Your task to perform on an android device: Go to Yahoo.com Image 0: 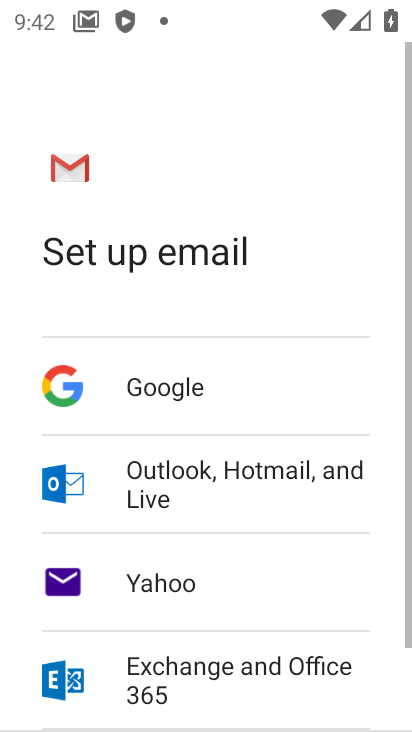
Step 0: press home button
Your task to perform on an android device: Go to Yahoo.com Image 1: 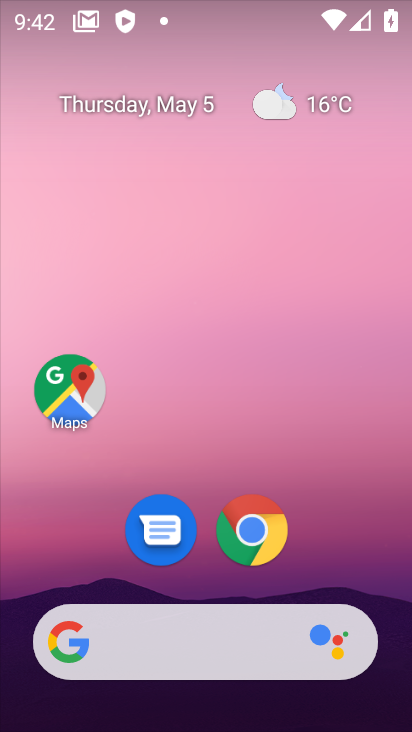
Step 1: click (150, 18)
Your task to perform on an android device: Go to Yahoo.com Image 2: 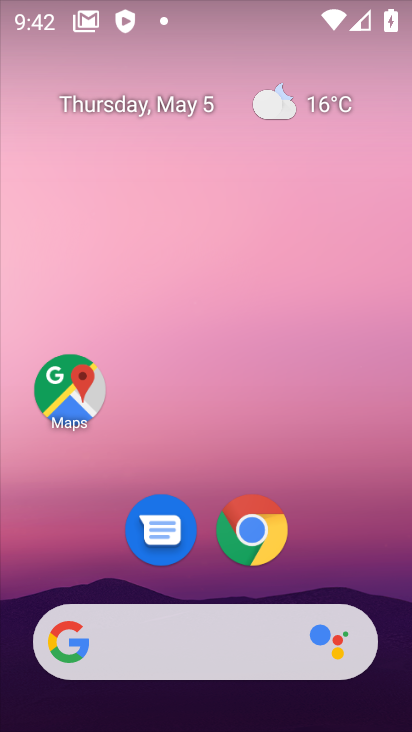
Step 2: drag from (313, 560) to (130, 25)
Your task to perform on an android device: Go to Yahoo.com Image 3: 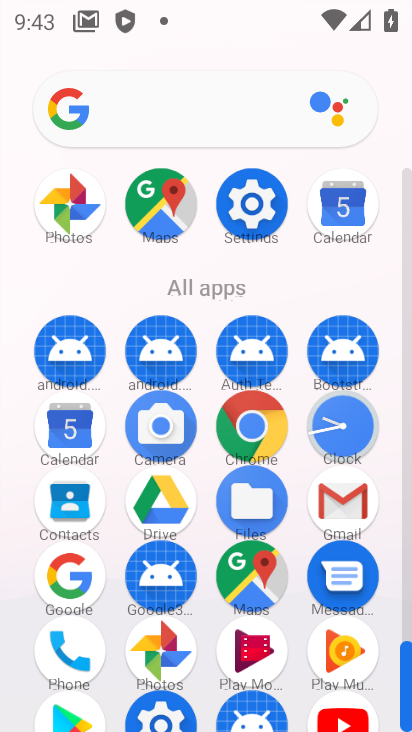
Step 3: click (235, 418)
Your task to perform on an android device: Go to Yahoo.com Image 4: 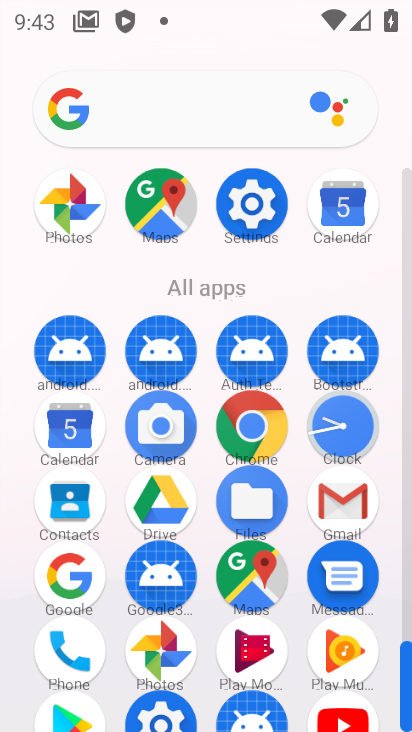
Step 4: click (248, 430)
Your task to perform on an android device: Go to Yahoo.com Image 5: 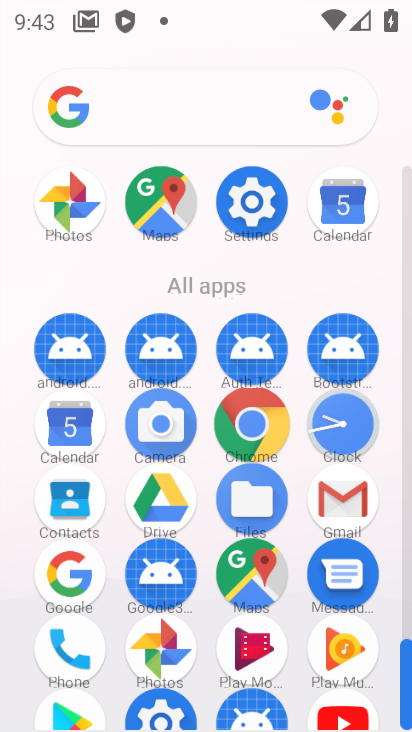
Step 5: click (248, 430)
Your task to perform on an android device: Go to Yahoo.com Image 6: 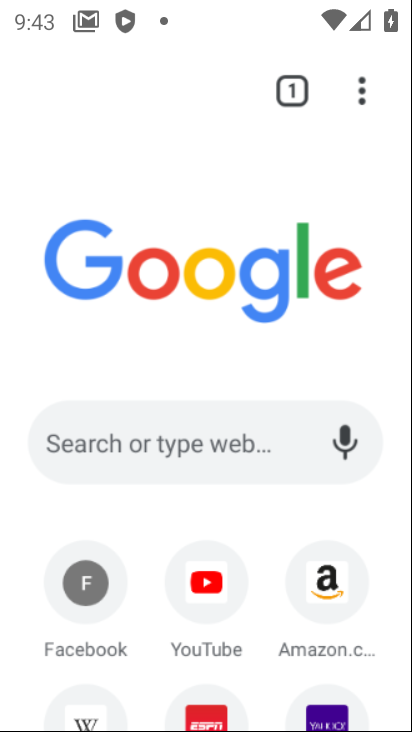
Step 6: click (252, 431)
Your task to perform on an android device: Go to Yahoo.com Image 7: 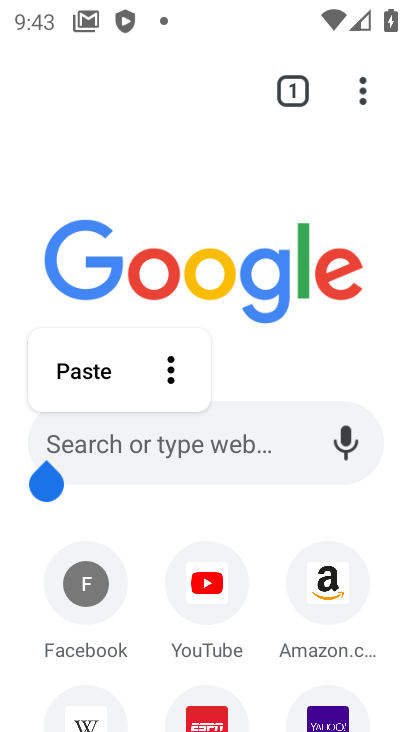
Step 7: drag from (269, 636) to (269, 93)
Your task to perform on an android device: Go to Yahoo.com Image 8: 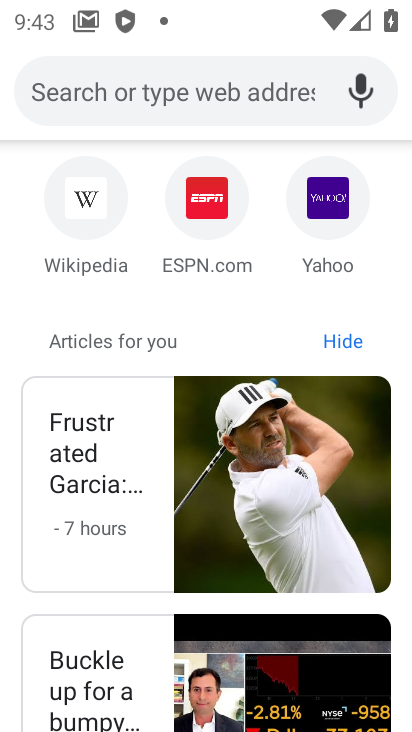
Step 8: click (325, 207)
Your task to perform on an android device: Go to Yahoo.com Image 9: 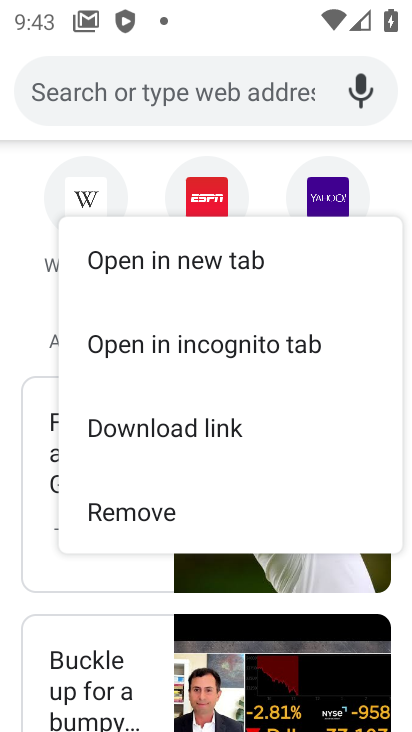
Step 9: click (325, 195)
Your task to perform on an android device: Go to Yahoo.com Image 10: 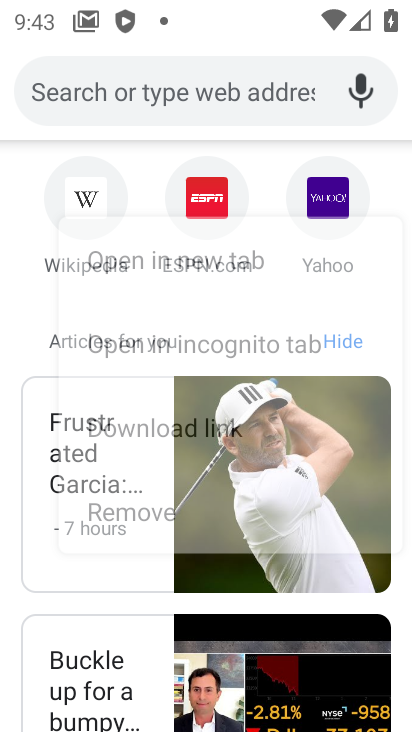
Step 10: click (325, 195)
Your task to perform on an android device: Go to Yahoo.com Image 11: 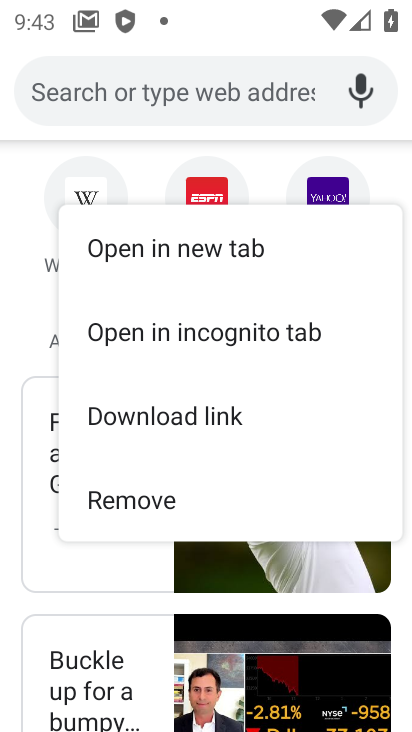
Step 11: click (194, 262)
Your task to perform on an android device: Go to Yahoo.com Image 12: 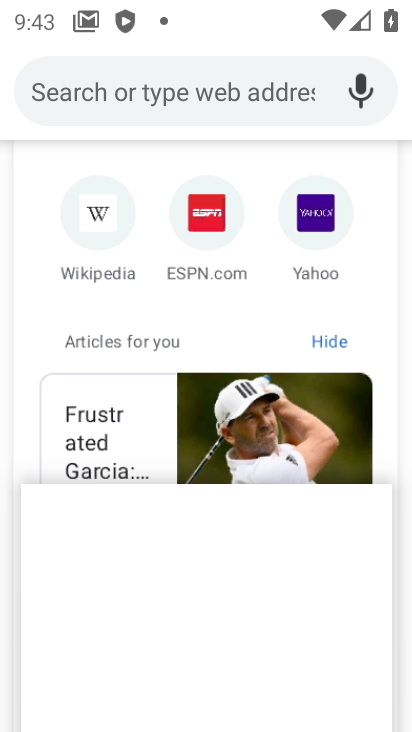
Step 12: click (195, 225)
Your task to perform on an android device: Go to Yahoo.com Image 13: 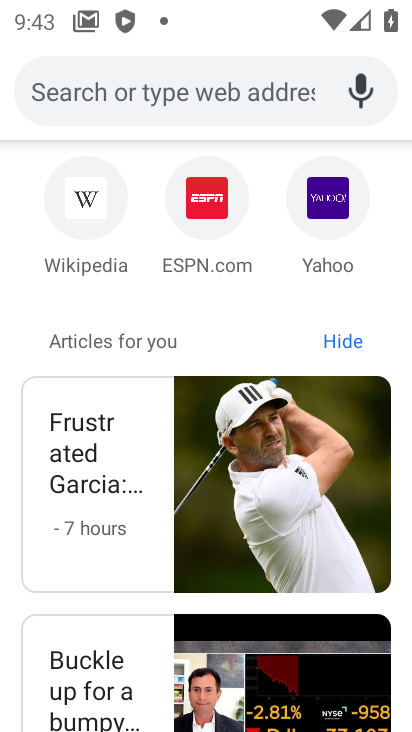
Step 13: click (196, 252)
Your task to perform on an android device: Go to Yahoo.com Image 14: 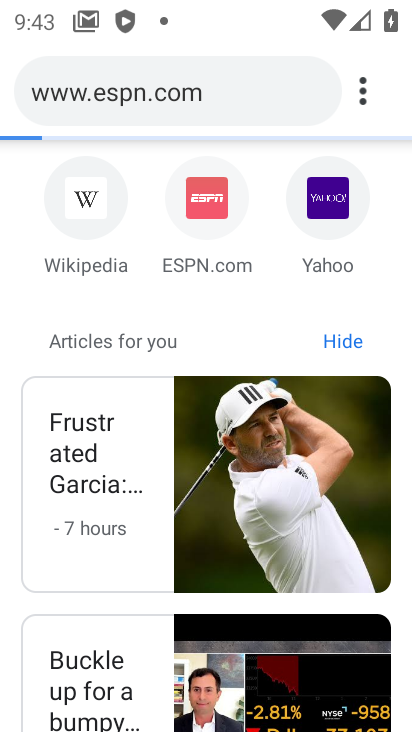
Step 14: click (196, 252)
Your task to perform on an android device: Go to Yahoo.com Image 15: 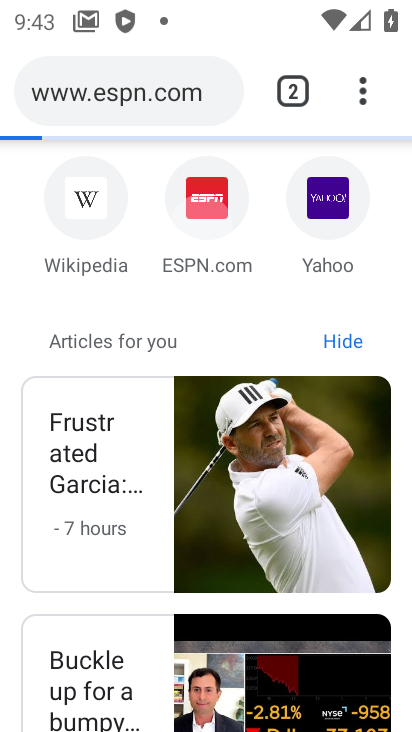
Step 15: click (196, 252)
Your task to perform on an android device: Go to Yahoo.com Image 16: 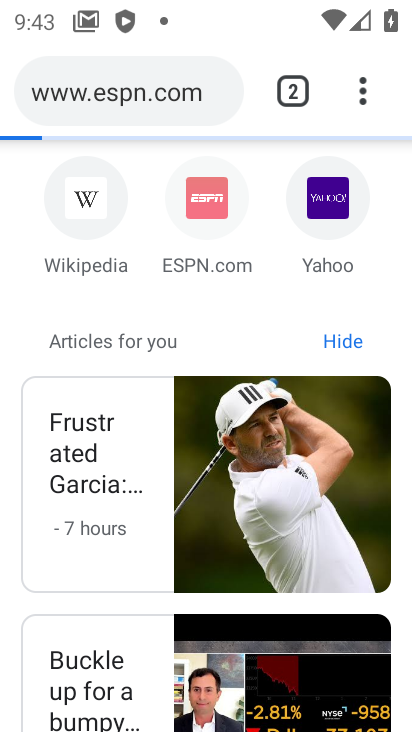
Step 16: click (196, 253)
Your task to perform on an android device: Go to Yahoo.com Image 17: 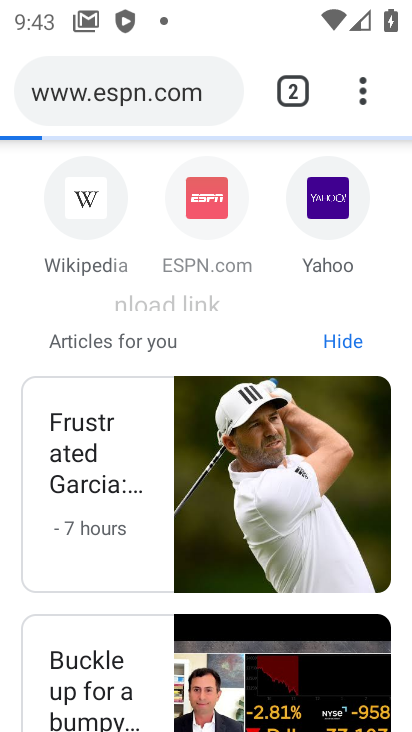
Step 17: click (198, 254)
Your task to perform on an android device: Go to Yahoo.com Image 18: 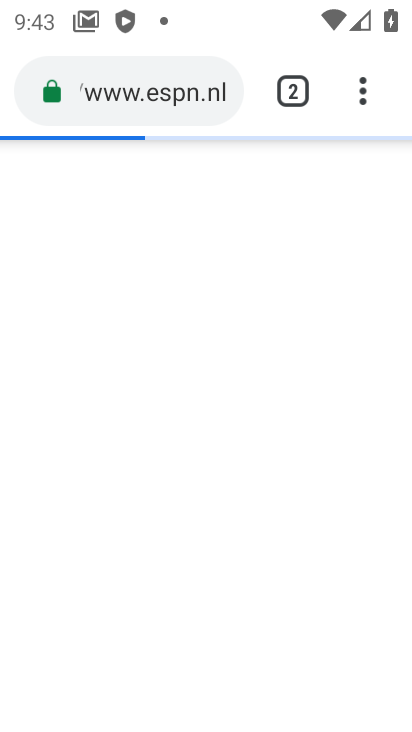
Step 18: click (334, 198)
Your task to perform on an android device: Go to Yahoo.com Image 19: 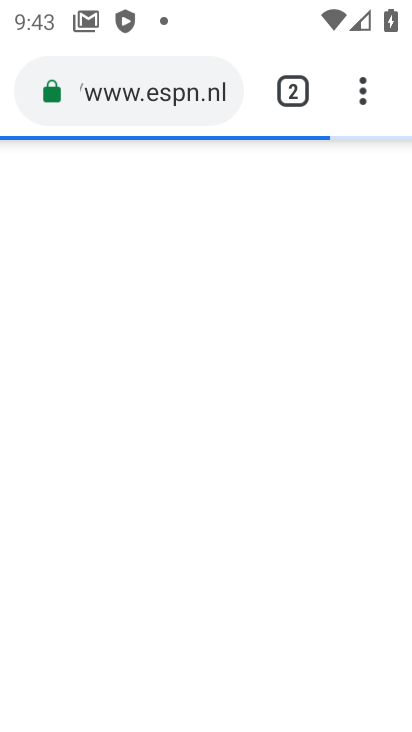
Step 19: click (332, 196)
Your task to perform on an android device: Go to Yahoo.com Image 20: 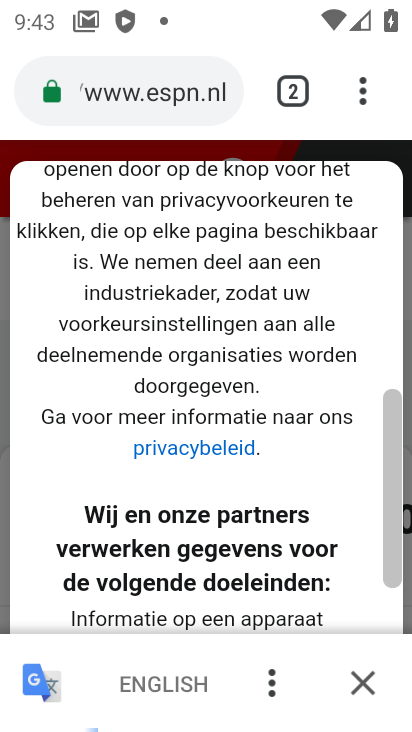
Step 20: click (360, 684)
Your task to perform on an android device: Go to Yahoo.com Image 21: 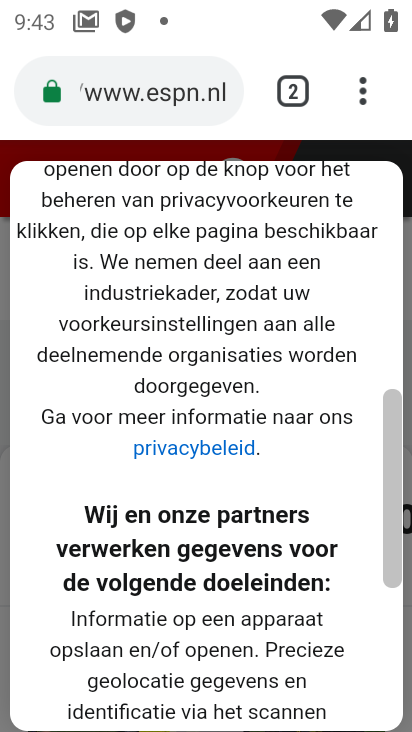
Step 21: click (361, 90)
Your task to perform on an android device: Go to Yahoo.com Image 22: 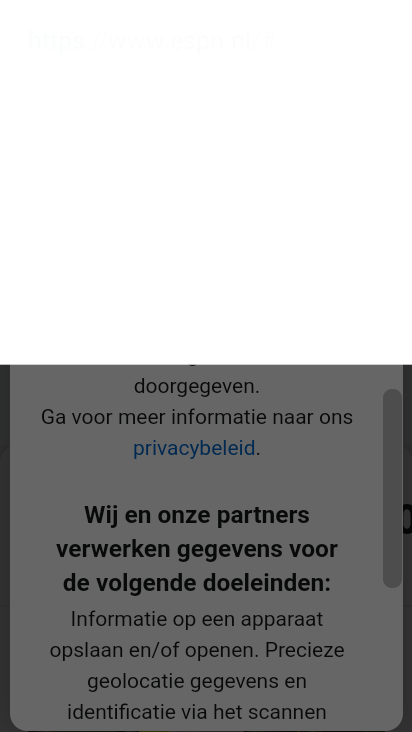
Step 22: click (361, 90)
Your task to perform on an android device: Go to Yahoo.com Image 23: 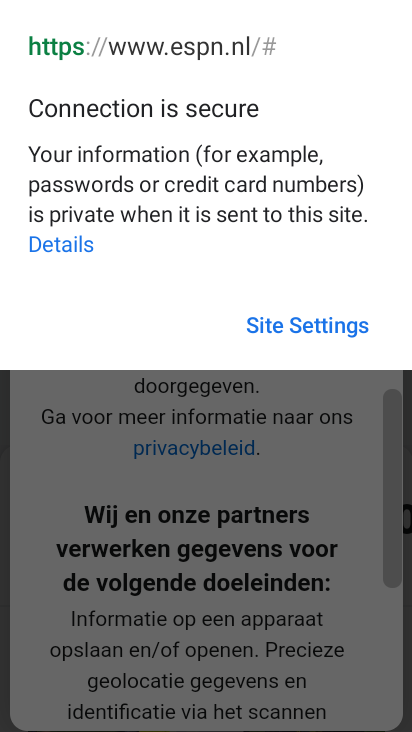
Step 23: click (361, 90)
Your task to perform on an android device: Go to Yahoo.com Image 24: 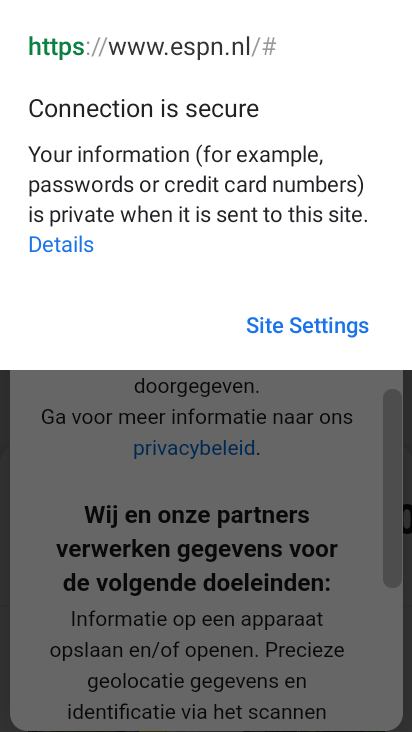
Step 24: click (317, 330)
Your task to perform on an android device: Go to Yahoo.com Image 25: 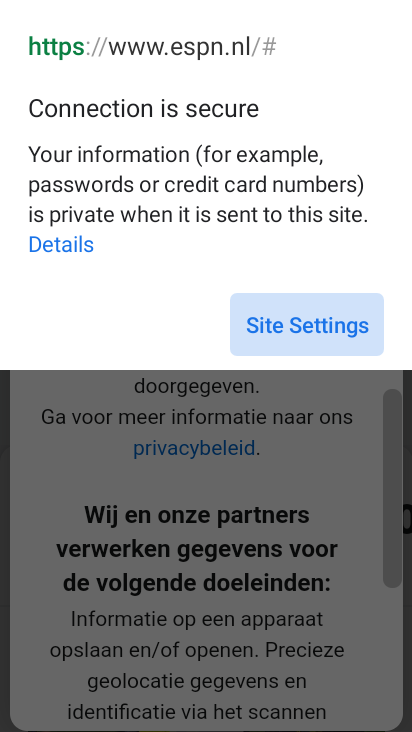
Step 25: click (318, 331)
Your task to perform on an android device: Go to Yahoo.com Image 26: 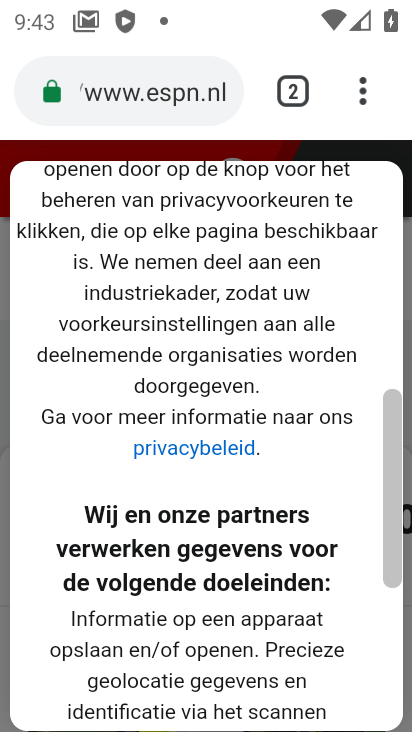
Step 26: click (318, 331)
Your task to perform on an android device: Go to Yahoo.com Image 27: 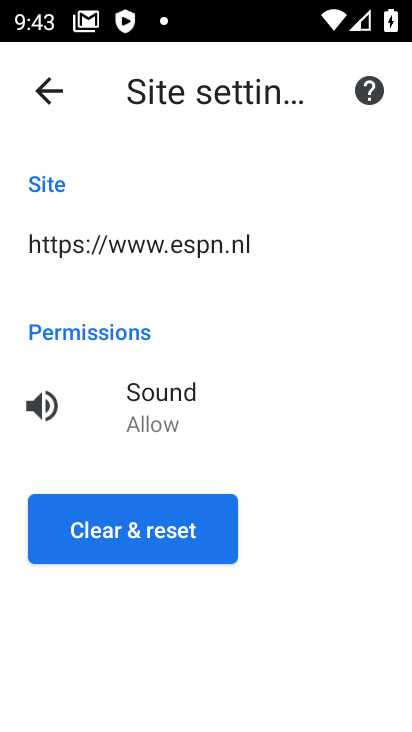
Step 27: click (328, 342)
Your task to perform on an android device: Go to Yahoo.com Image 28: 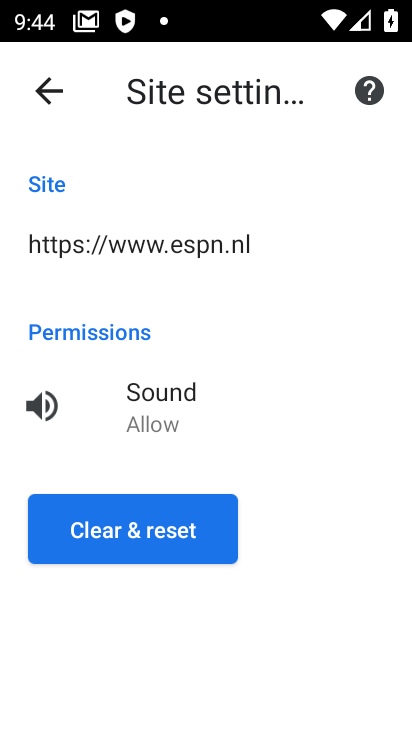
Step 28: click (49, 99)
Your task to perform on an android device: Go to Yahoo.com Image 29: 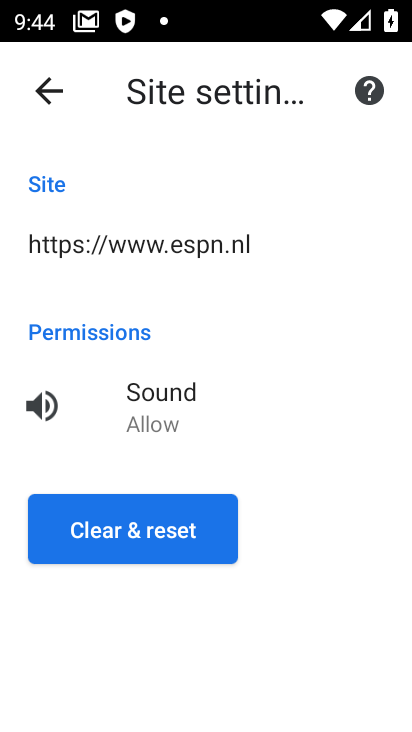
Step 29: click (49, 93)
Your task to perform on an android device: Go to Yahoo.com Image 30: 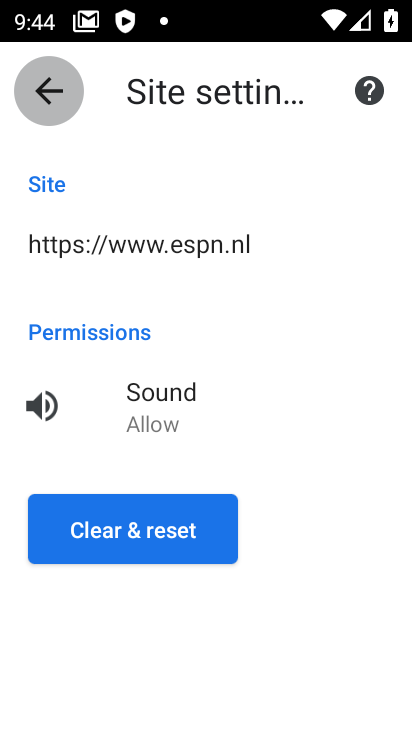
Step 30: click (49, 94)
Your task to perform on an android device: Go to Yahoo.com Image 31: 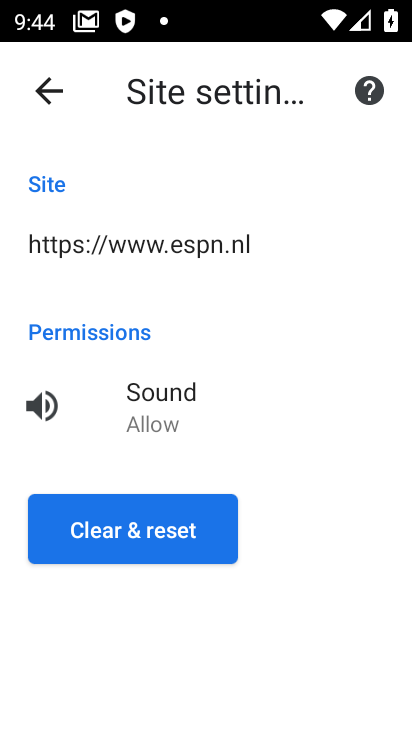
Step 31: click (49, 95)
Your task to perform on an android device: Go to Yahoo.com Image 32: 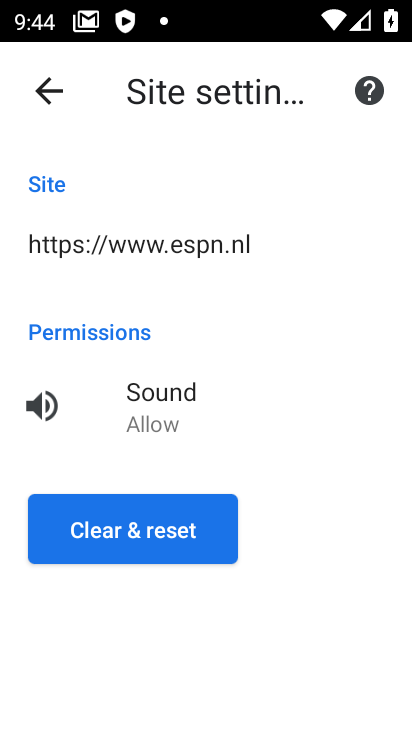
Step 32: click (52, 98)
Your task to perform on an android device: Go to Yahoo.com Image 33: 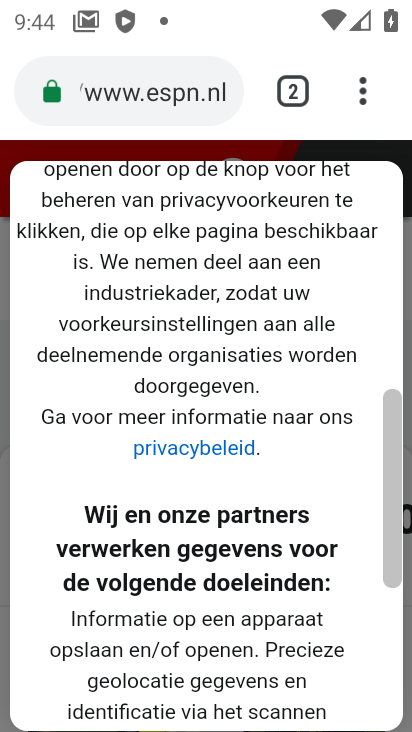
Step 33: click (360, 84)
Your task to perform on an android device: Go to Yahoo.com Image 34: 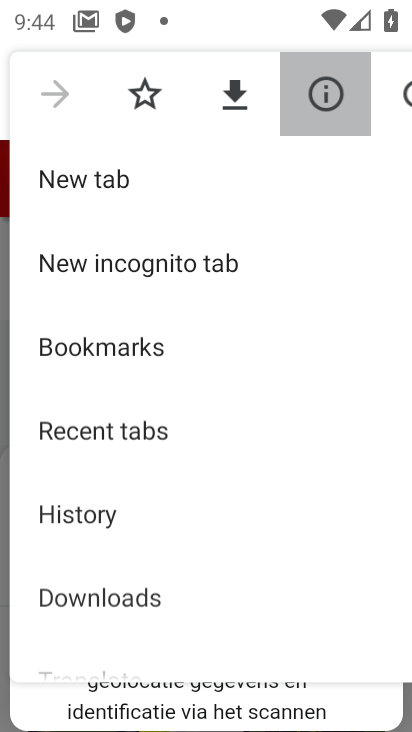
Step 34: click (366, 91)
Your task to perform on an android device: Go to Yahoo.com Image 35: 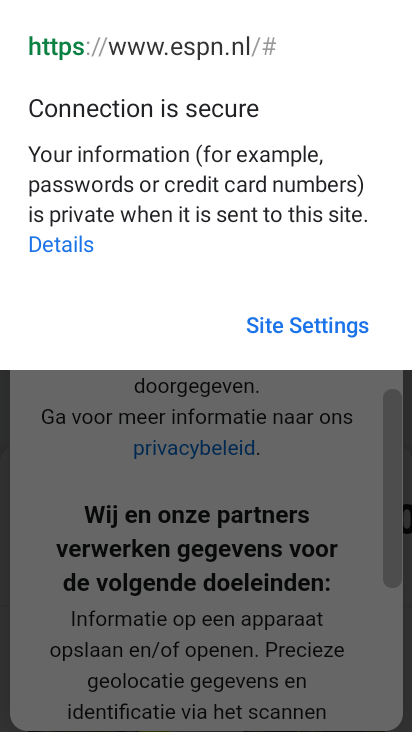
Step 35: click (313, 329)
Your task to perform on an android device: Go to Yahoo.com Image 36: 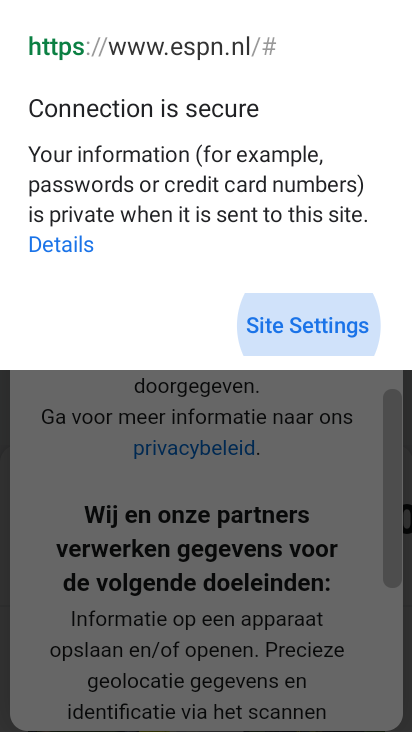
Step 36: click (313, 328)
Your task to perform on an android device: Go to Yahoo.com Image 37: 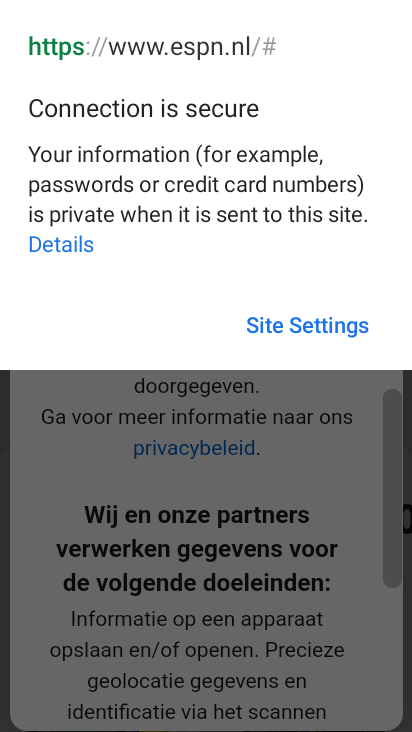
Step 37: click (303, 338)
Your task to perform on an android device: Go to Yahoo.com Image 38: 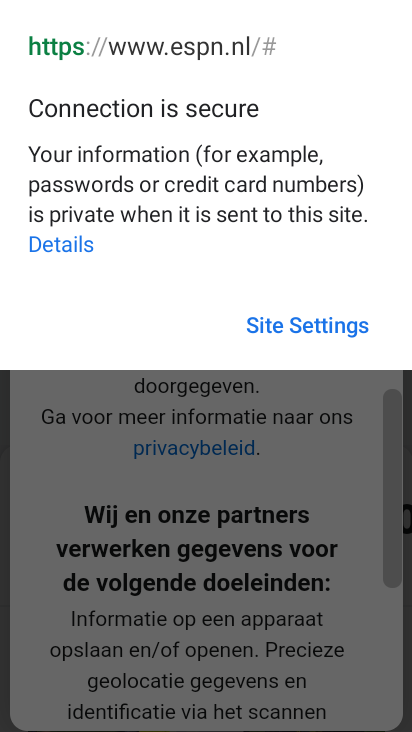
Step 38: click (308, 334)
Your task to perform on an android device: Go to Yahoo.com Image 39: 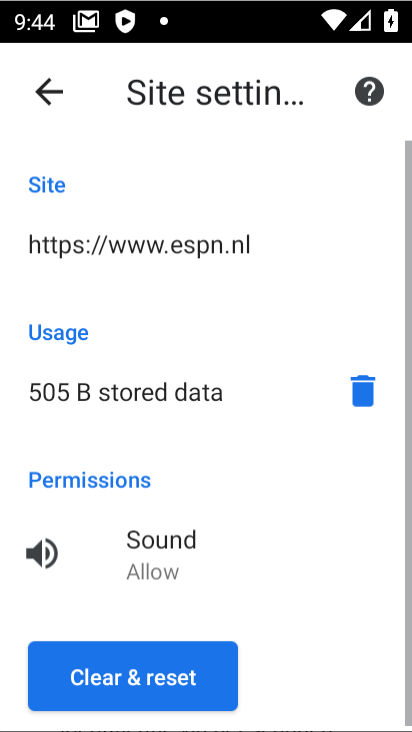
Step 39: click (309, 332)
Your task to perform on an android device: Go to Yahoo.com Image 40: 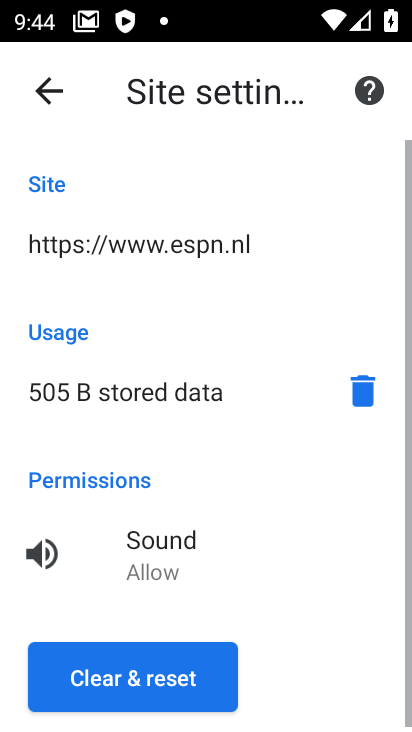
Step 40: click (310, 331)
Your task to perform on an android device: Go to Yahoo.com Image 41: 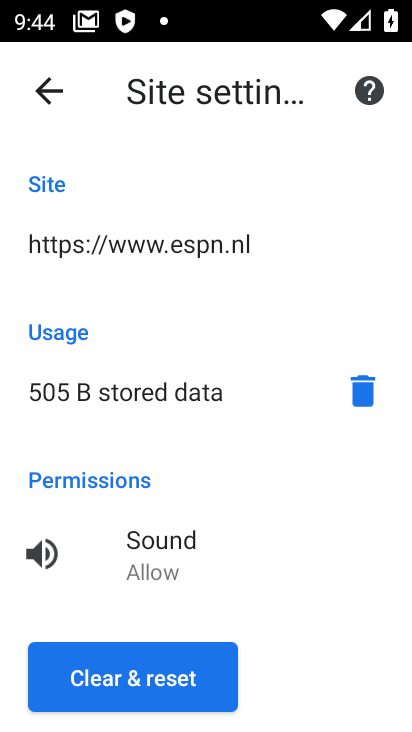
Step 41: click (37, 94)
Your task to perform on an android device: Go to Yahoo.com Image 42: 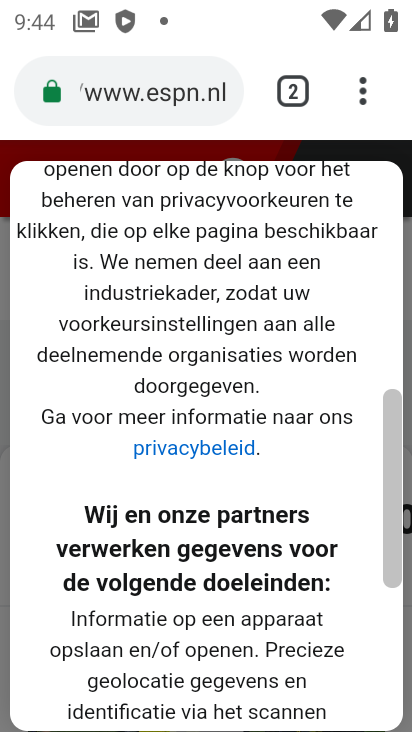
Step 42: click (43, 94)
Your task to perform on an android device: Go to Yahoo.com Image 43: 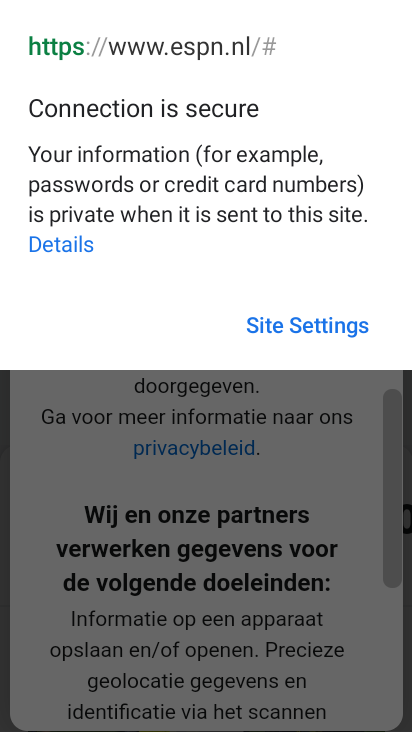
Step 43: click (314, 327)
Your task to perform on an android device: Go to Yahoo.com Image 44: 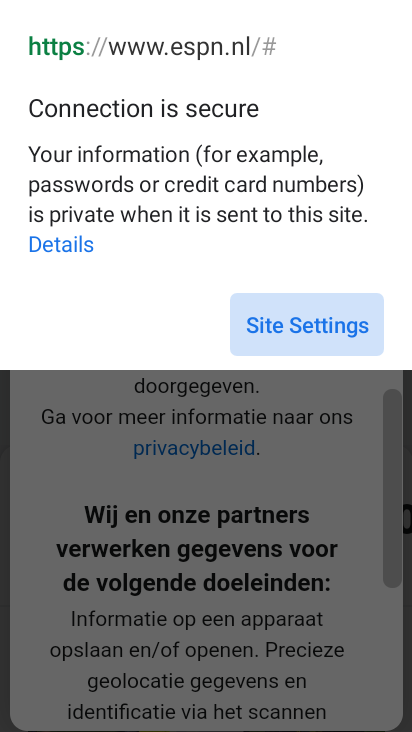
Step 44: click (314, 327)
Your task to perform on an android device: Go to Yahoo.com Image 45: 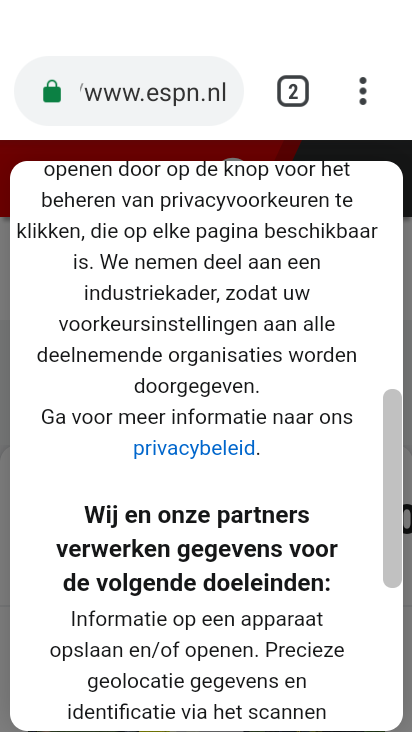
Step 45: click (314, 327)
Your task to perform on an android device: Go to Yahoo.com Image 46: 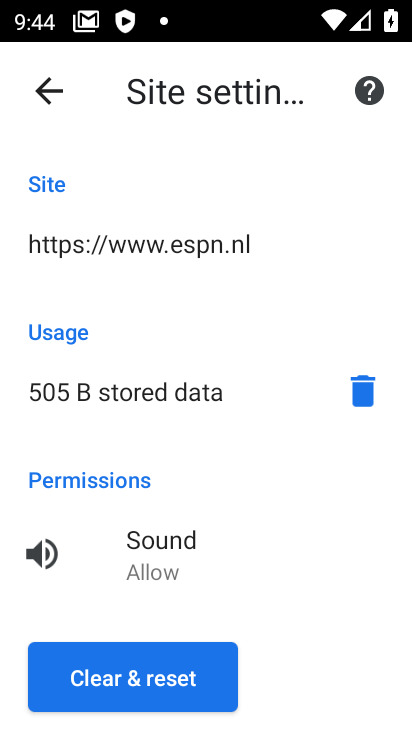
Step 46: click (48, 92)
Your task to perform on an android device: Go to Yahoo.com Image 47: 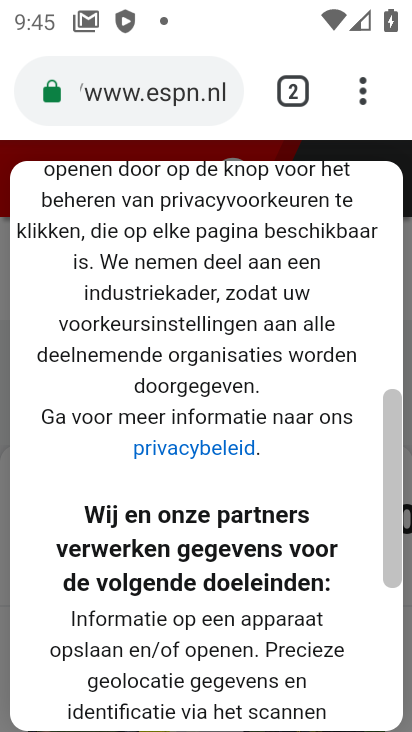
Step 47: press home button
Your task to perform on an android device: Go to Yahoo.com Image 48: 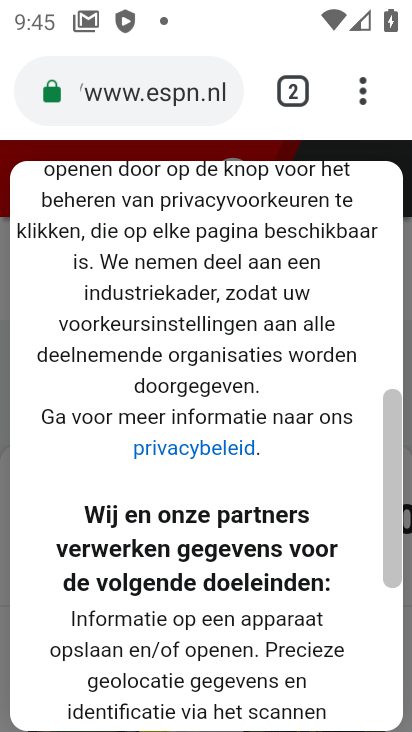
Step 48: press home button
Your task to perform on an android device: Go to Yahoo.com Image 49: 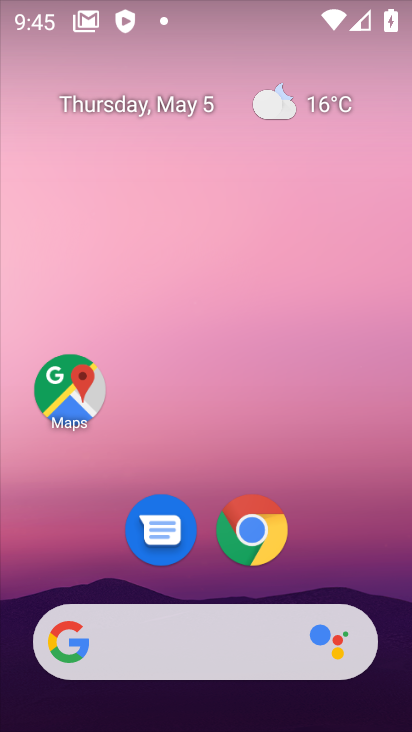
Step 49: drag from (230, 328) to (115, 3)
Your task to perform on an android device: Go to Yahoo.com Image 50: 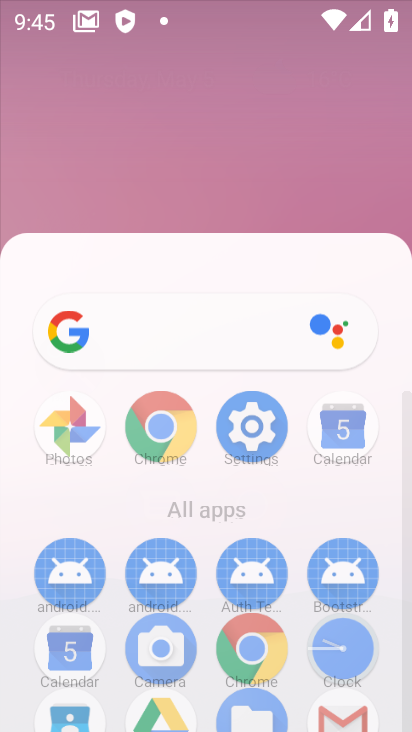
Step 50: click (119, 2)
Your task to perform on an android device: Go to Yahoo.com Image 51: 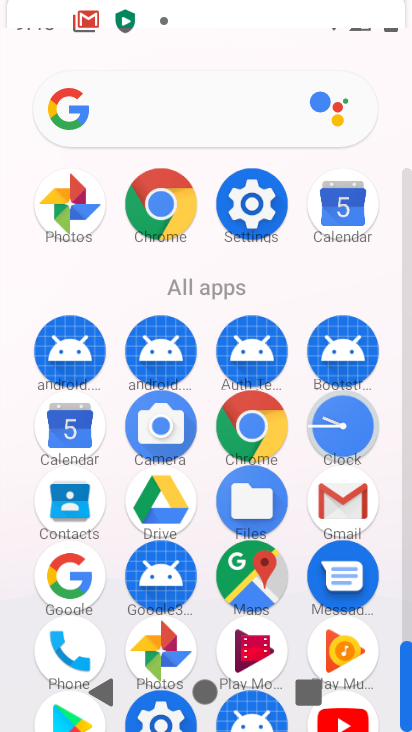
Step 51: drag from (323, 546) to (244, 29)
Your task to perform on an android device: Go to Yahoo.com Image 52: 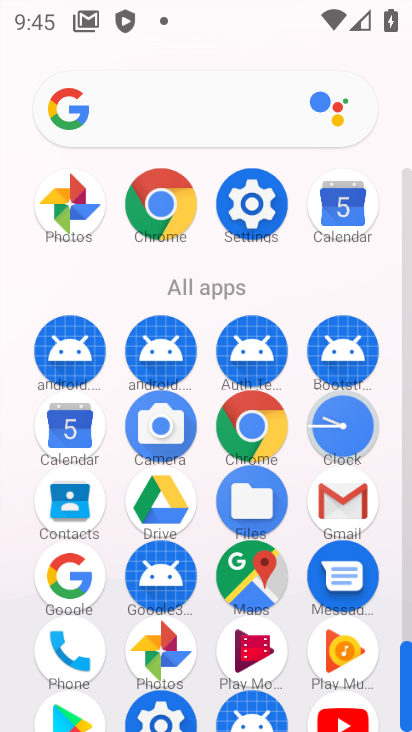
Step 52: click (156, 220)
Your task to perform on an android device: Go to Yahoo.com Image 53: 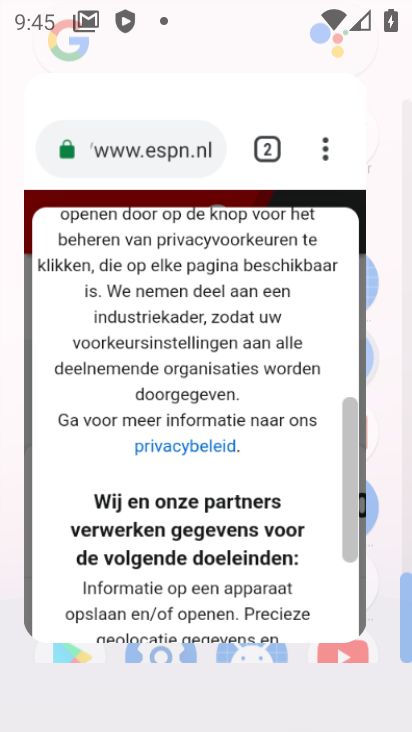
Step 53: click (154, 215)
Your task to perform on an android device: Go to Yahoo.com Image 54: 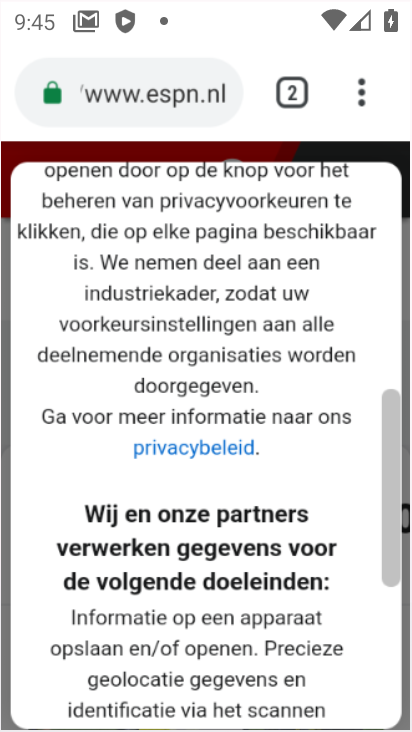
Step 54: click (156, 216)
Your task to perform on an android device: Go to Yahoo.com Image 55: 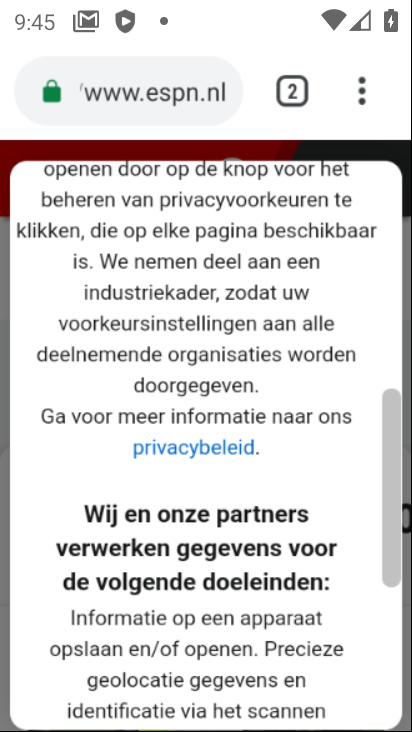
Step 55: click (158, 218)
Your task to perform on an android device: Go to Yahoo.com Image 56: 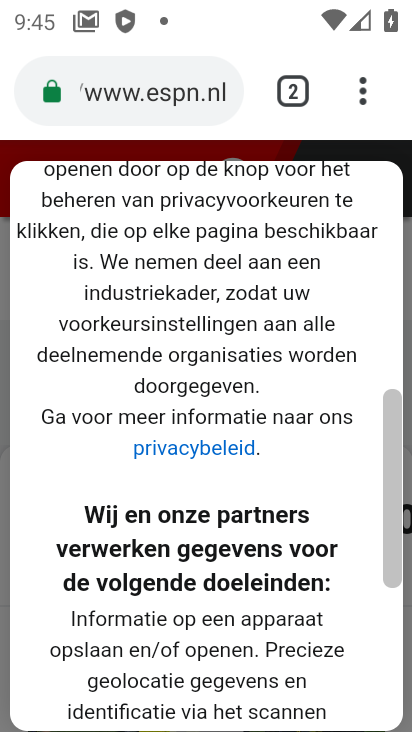
Step 56: drag from (238, 542) to (377, 23)
Your task to perform on an android device: Go to Yahoo.com Image 57: 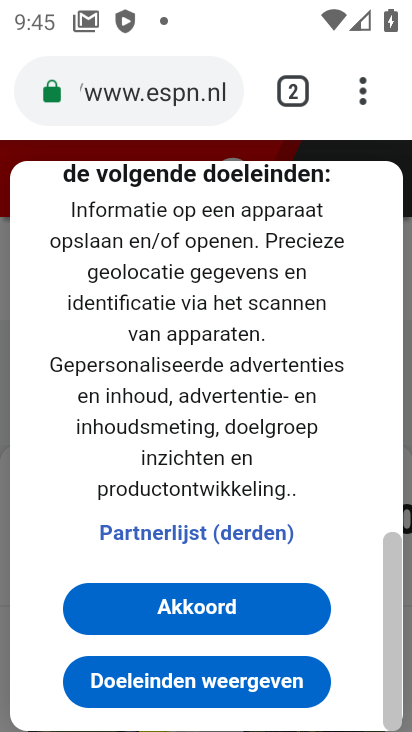
Step 57: click (361, 100)
Your task to perform on an android device: Go to Yahoo.com Image 58: 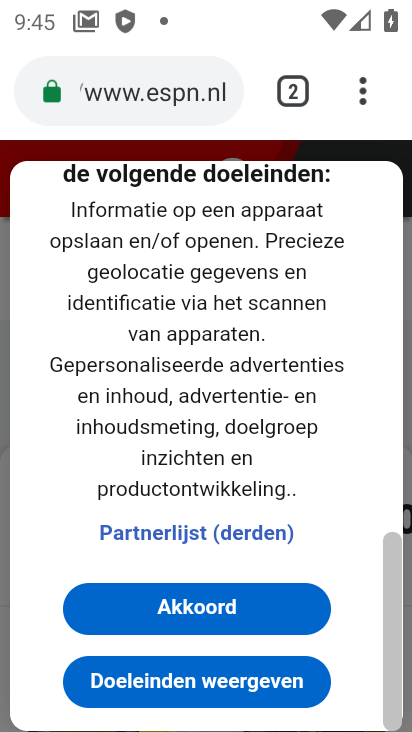
Step 58: click (362, 98)
Your task to perform on an android device: Go to Yahoo.com Image 59: 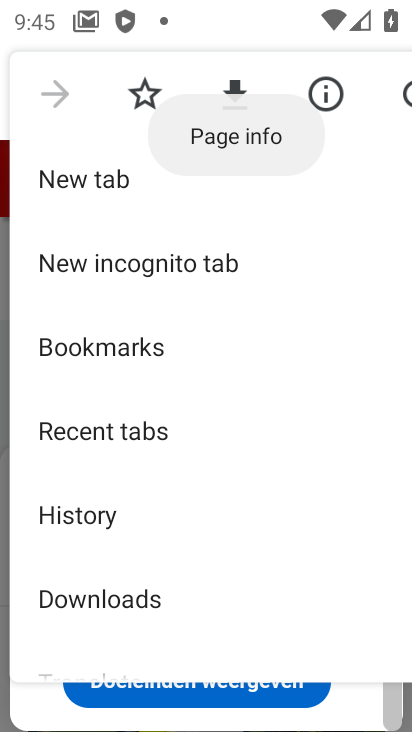
Step 59: click (89, 181)
Your task to perform on an android device: Go to Yahoo.com Image 60: 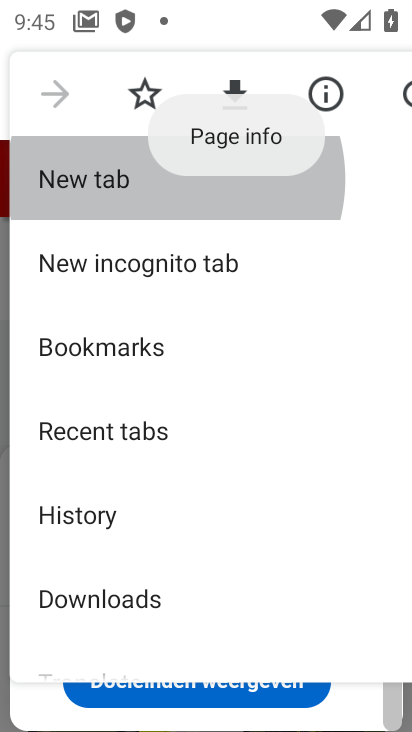
Step 60: click (88, 178)
Your task to perform on an android device: Go to Yahoo.com Image 61: 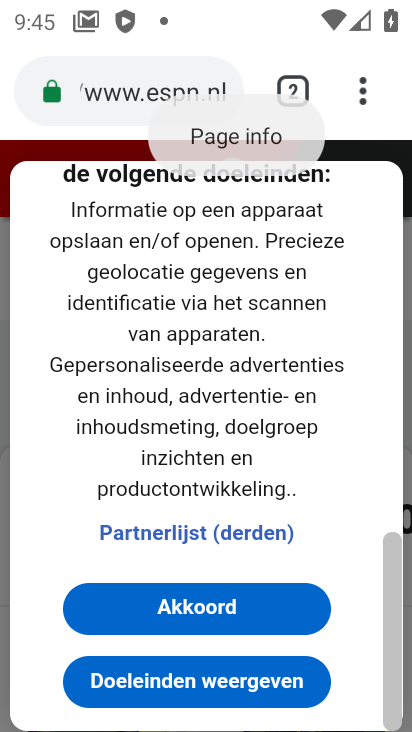
Step 61: click (85, 179)
Your task to perform on an android device: Go to Yahoo.com Image 62: 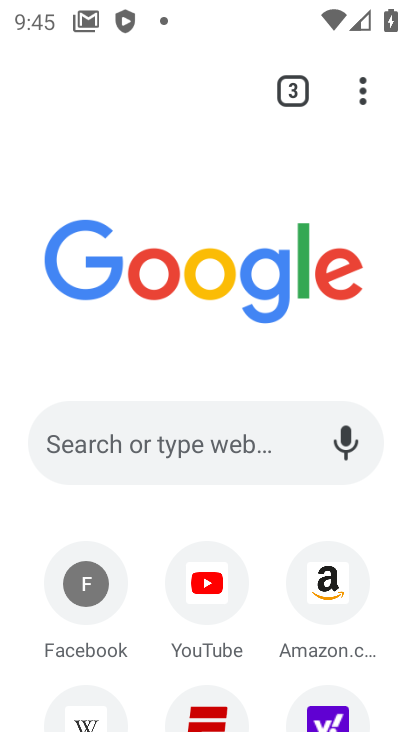
Step 62: click (335, 717)
Your task to perform on an android device: Go to Yahoo.com Image 63: 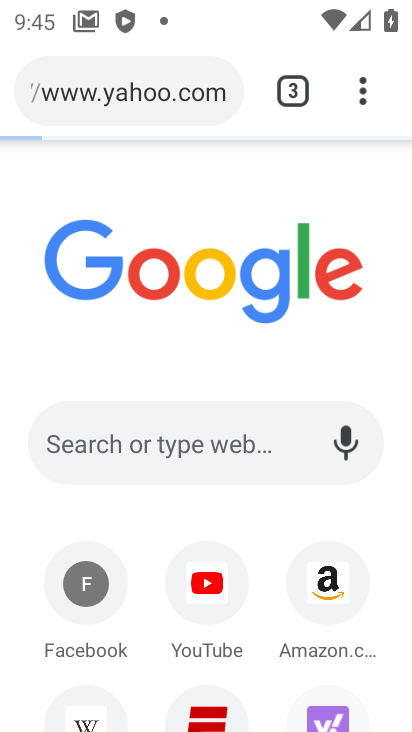
Step 63: click (335, 717)
Your task to perform on an android device: Go to Yahoo.com Image 64: 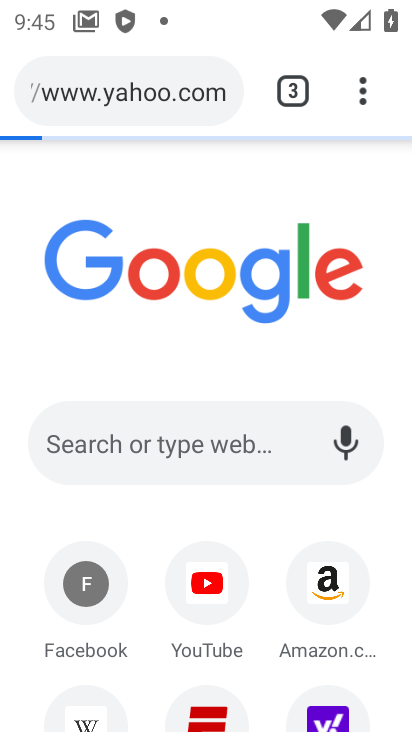
Step 64: click (335, 717)
Your task to perform on an android device: Go to Yahoo.com Image 65: 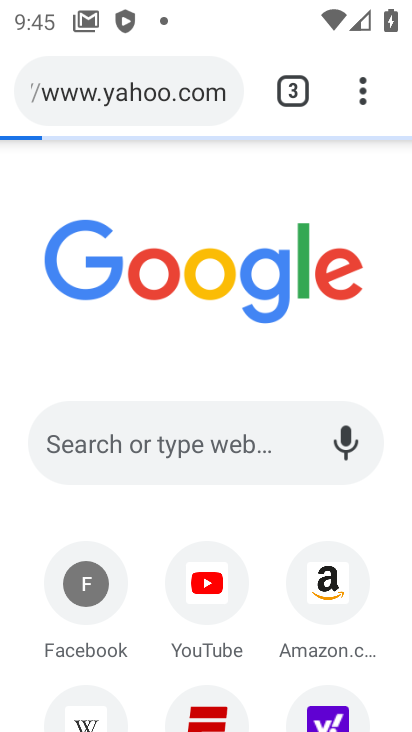
Step 65: click (334, 717)
Your task to perform on an android device: Go to Yahoo.com Image 66: 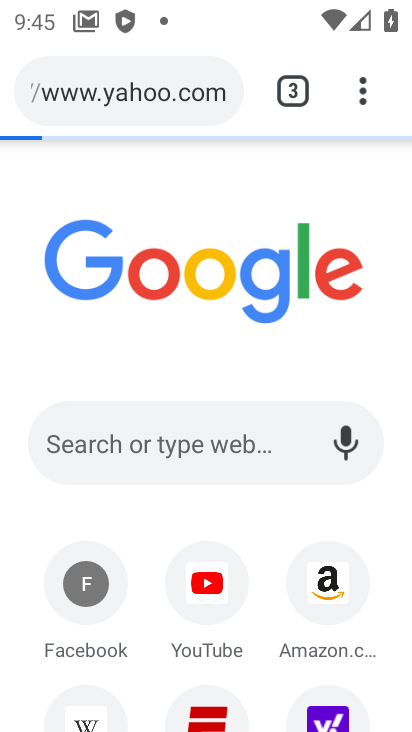
Step 66: click (334, 717)
Your task to perform on an android device: Go to Yahoo.com Image 67: 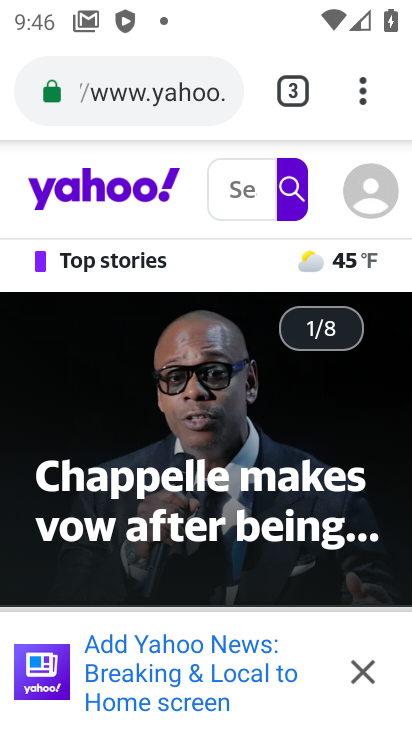
Step 67: task complete